Your task to perform on an android device: View the shopping cart on ebay.com. Search for usb-a on ebay.com, select the first entry, add it to the cart, then select checkout. Image 0: 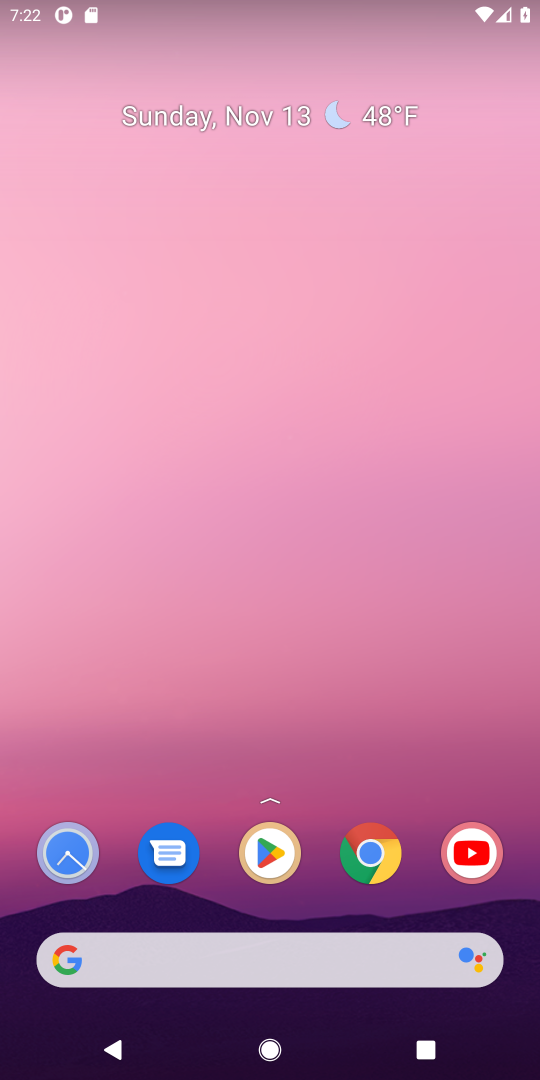
Step 0: press home button
Your task to perform on an android device: View the shopping cart on ebay.com. Search for usb-a on ebay.com, select the first entry, add it to the cart, then select checkout. Image 1: 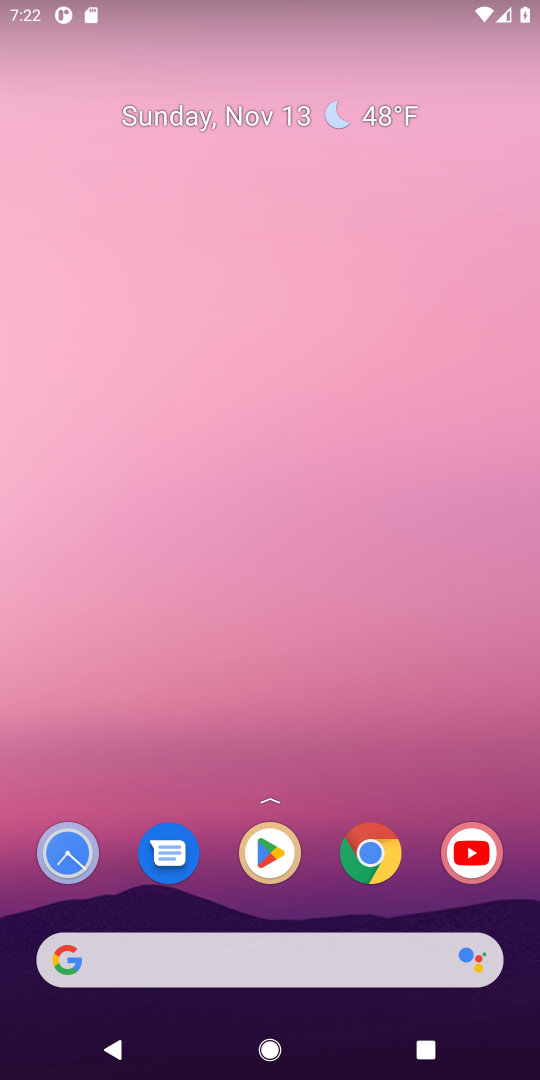
Step 1: click (109, 962)
Your task to perform on an android device: View the shopping cart on ebay.com. Search for usb-a on ebay.com, select the first entry, add it to the cart, then select checkout. Image 2: 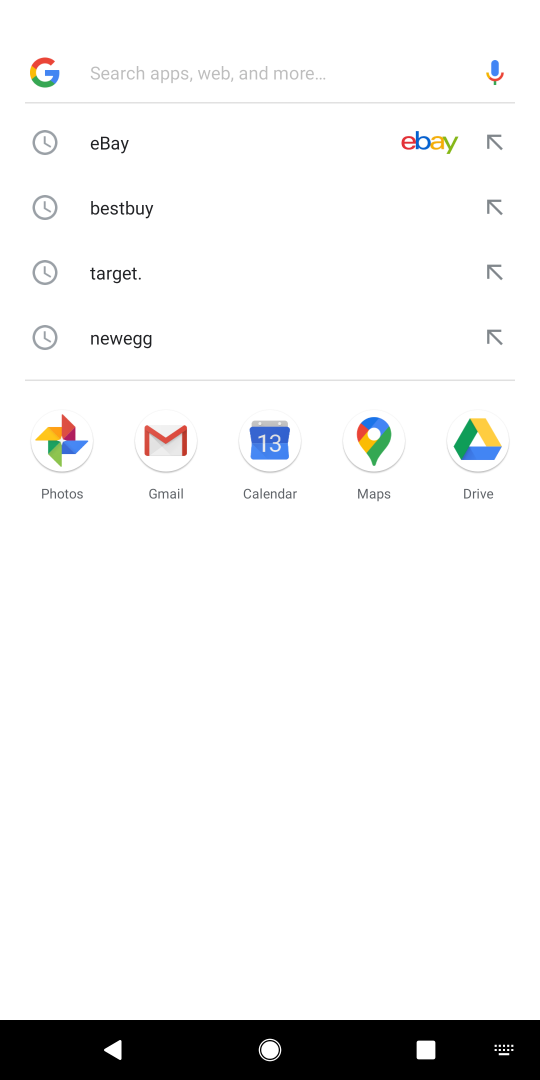
Step 2: click (130, 139)
Your task to perform on an android device: View the shopping cart on ebay.com. Search for usb-a on ebay.com, select the first entry, add it to the cart, then select checkout. Image 3: 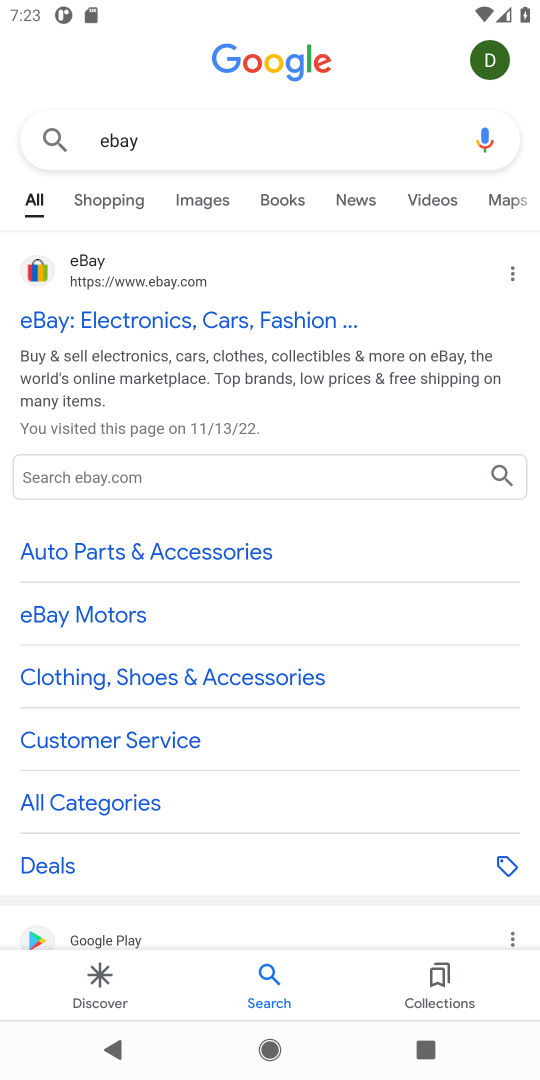
Step 3: click (111, 313)
Your task to perform on an android device: View the shopping cart on ebay.com. Search for usb-a on ebay.com, select the first entry, add it to the cart, then select checkout. Image 4: 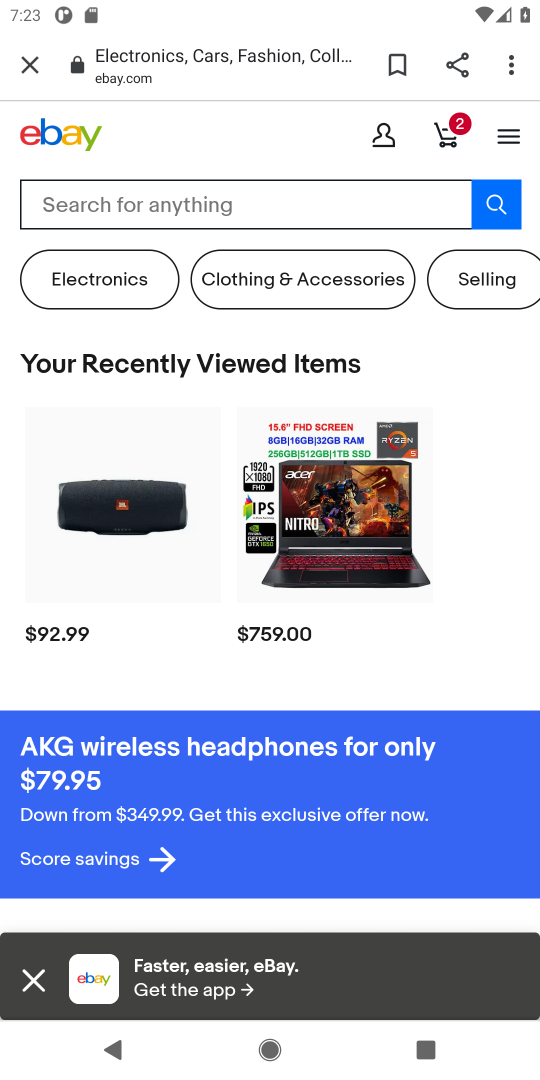
Step 4: click (447, 138)
Your task to perform on an android device: View the shopping cart on ebay.com. Search for usb-a on ebay.com, select the first entry, add it to the cart, then select checkout. Image 5: 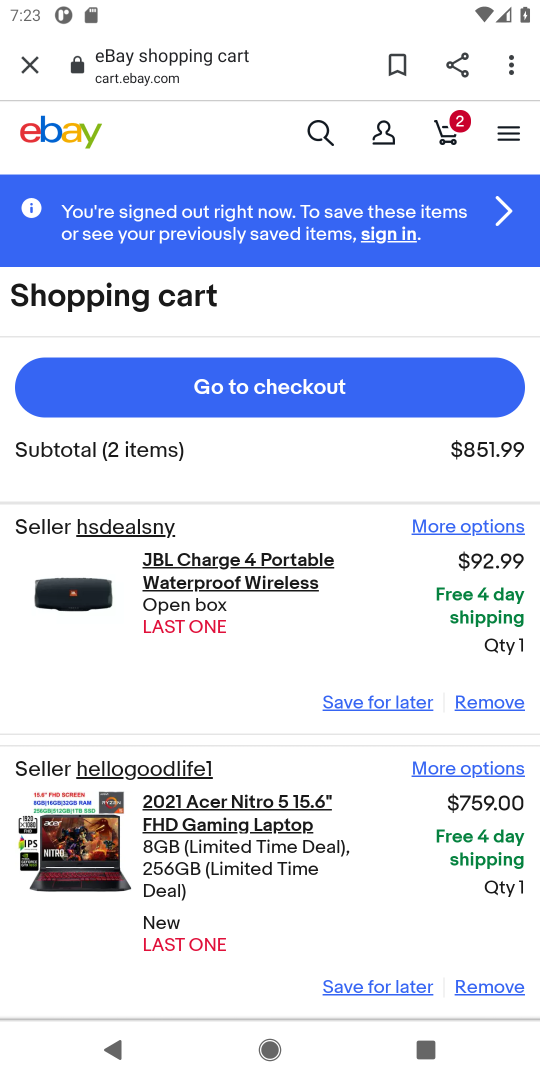
Step 5: click (315, 129)
Your task to perform on an android device: View the shopping cart on ebay.com. Search for usb-a on ebay.com, select the first entry, add it to the cart, then select checkout. Image 6: 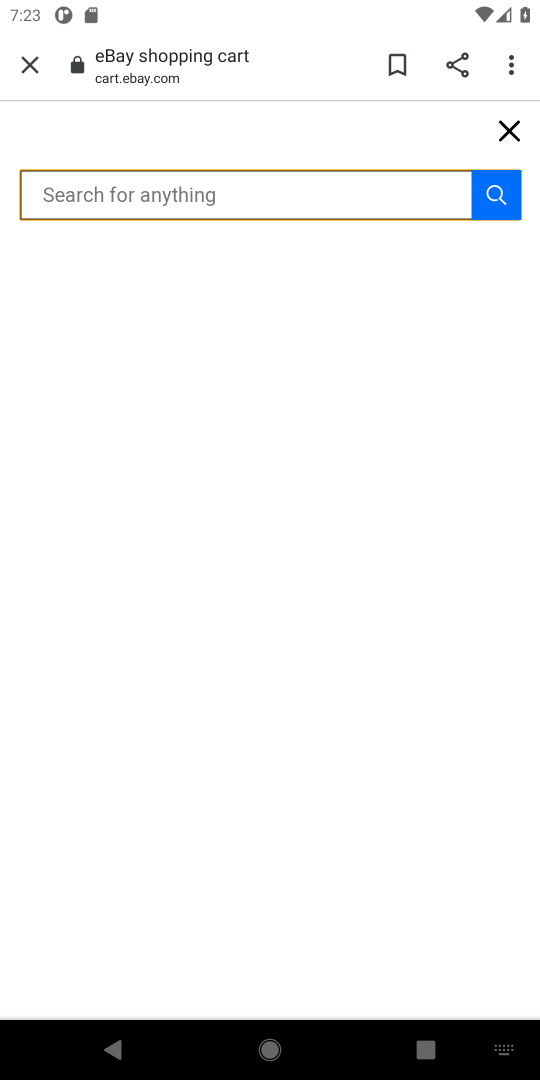
Step 6: type "usb-a"
Your task to perform on an android device: View the shopping cart on ebay.com. Search for usb-a on ebay.com, select the first entry, add it to the cart, then select checkout. Image 7: 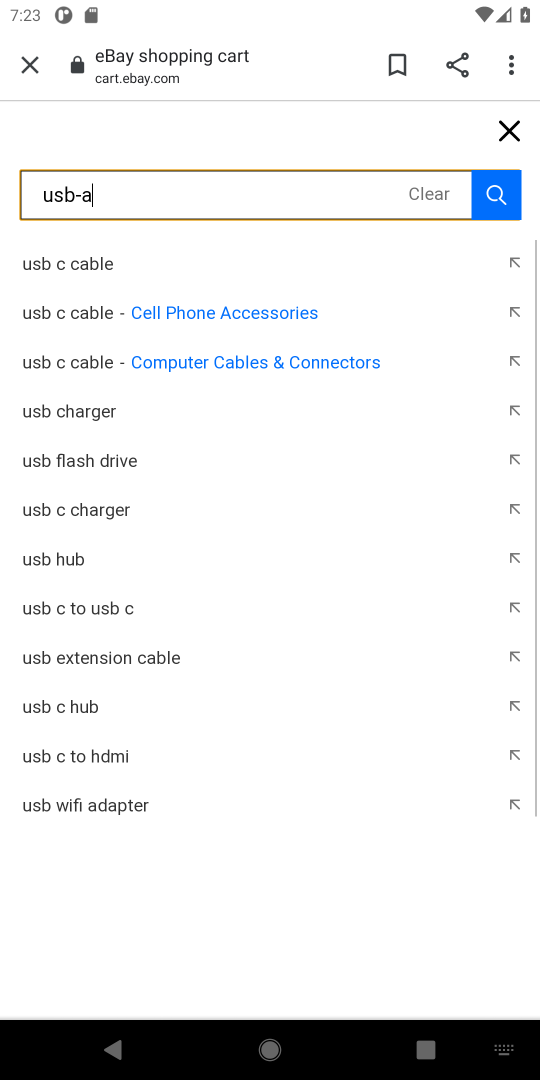
Step 7: press enter
Your task to perform on an android device: View the shopping cart on ebay.com. Search for usb-a on ebay.com, select the first entry, add it to the cart, then select checkout. Image 8: 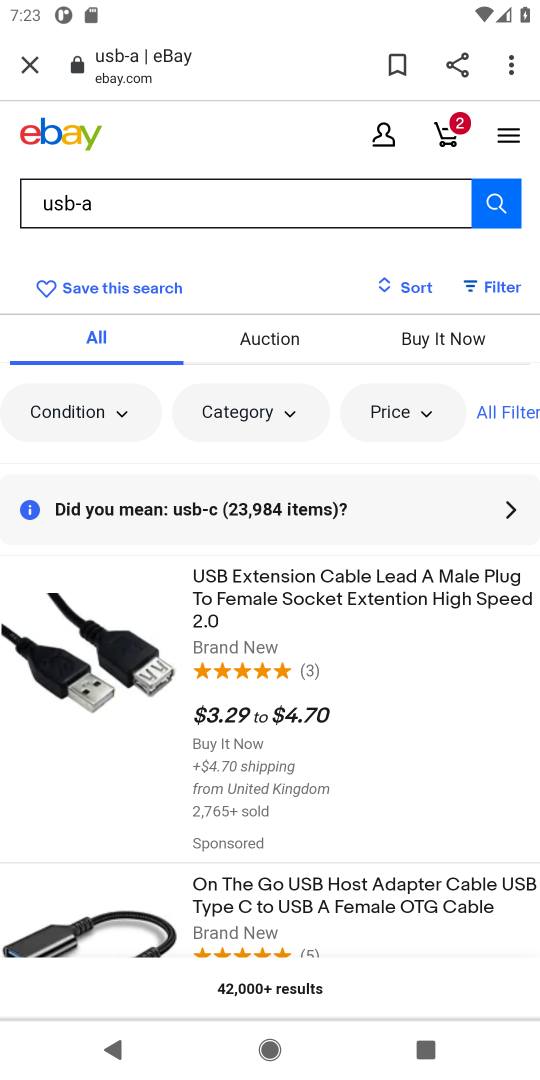
Step 8: click (286, 593)
Your task to perform on an android device: View the shopping cart on ebay.com. Search for usb-a on ebay.com, select the first entry, add it to the cart, then select checkout. Image 9: 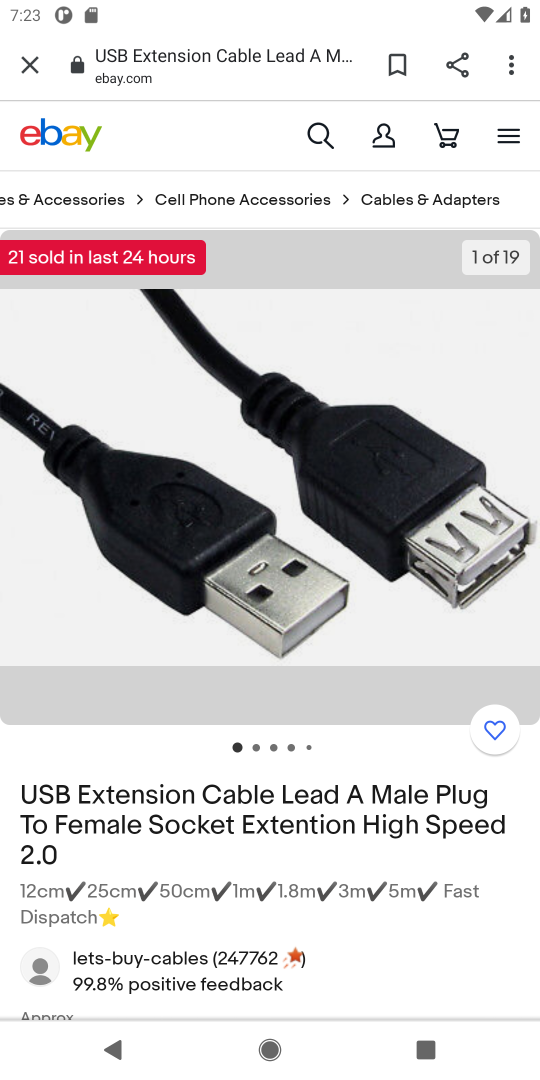
Step 9: drag from (306, 889) to (300, 400)
Your task to perform on an android device: View the shopping cart on ebay.com. Search for usb-a on ebay.com, select the first entry, add it to the cart, then select checkout. Image 10: 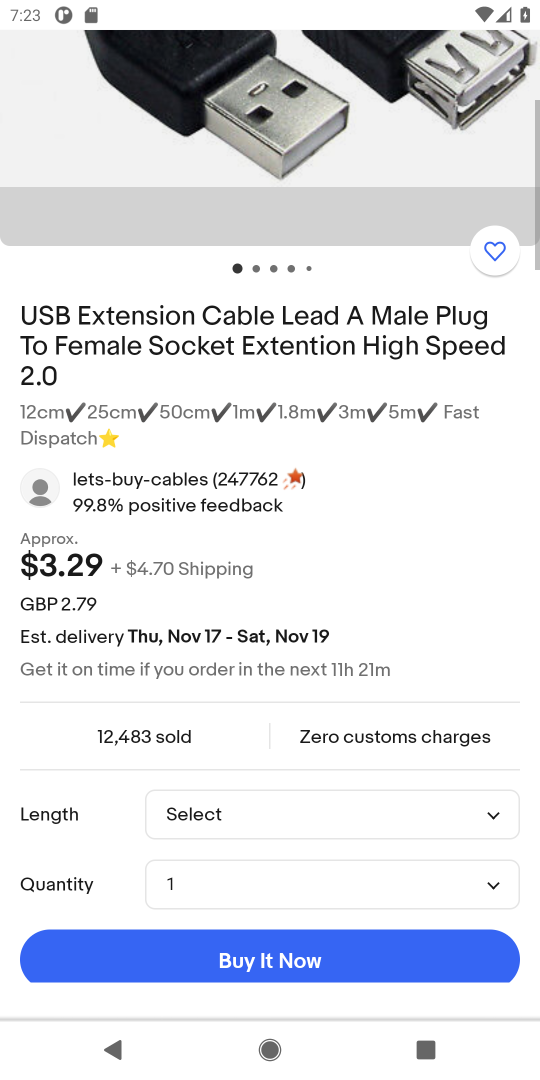
Step 10: drag from (252, 838) to (268, 299)
Your task to perform on an android device: View the shopping cart on ebay.com. Search for usb-a on ebay.com, select the first entry, add it to the cart, then select checkout. Image 11: 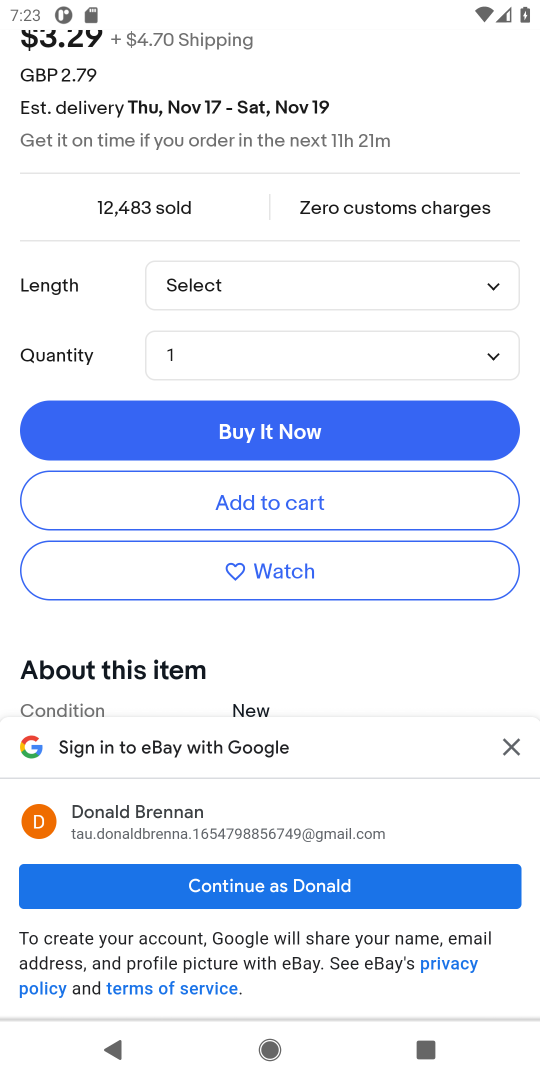
Step 11: click (505, 740)
Your task to perform on an android device: View the shopping cart on ebay.com. Search for usb-a on ebay.com, select the first entry, add it to the cart, then select checkout. Image 12: 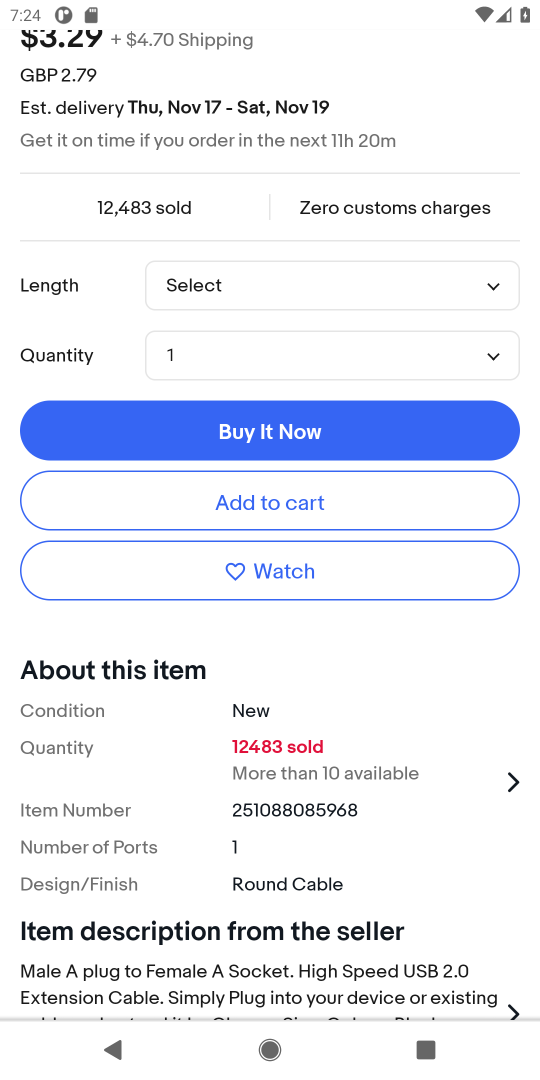
Step 12: click (287, 498)
Your task to perform on an android device: View the shopping cart on ebay.com. Search for usb-a on ebay.com, select the first entry, add it to the cart, then select checkout. Image 13: 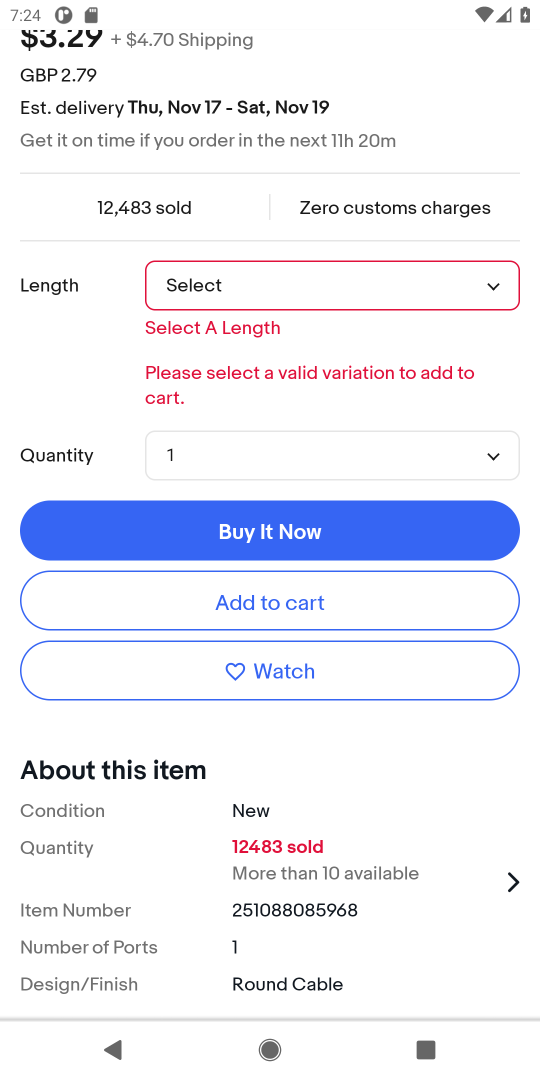
Step 13: click (490, 285)
Your task to perform on an android device: View the shopping cart on ebay.com. Search for usb-a on ebay.com, select the first entry, add it to the cart, then select checkout. Image 14: 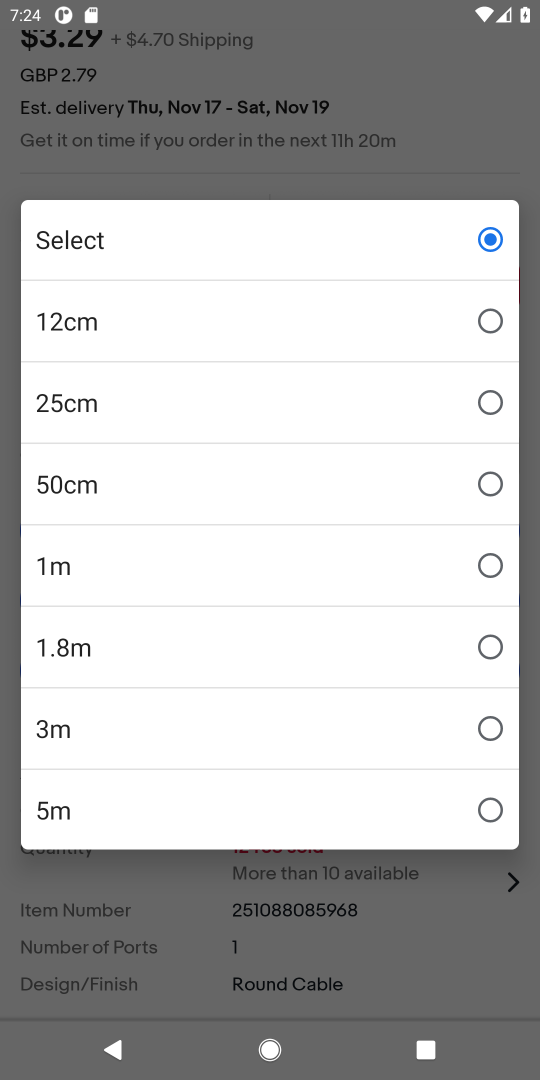
Step 14: click (490, 327)
Your task to perform on an android device: View the shopping cart on ebay.com. Search for usb-a on ebay.com, select the first entry, add it to the cart, then select checkout. Image 15: 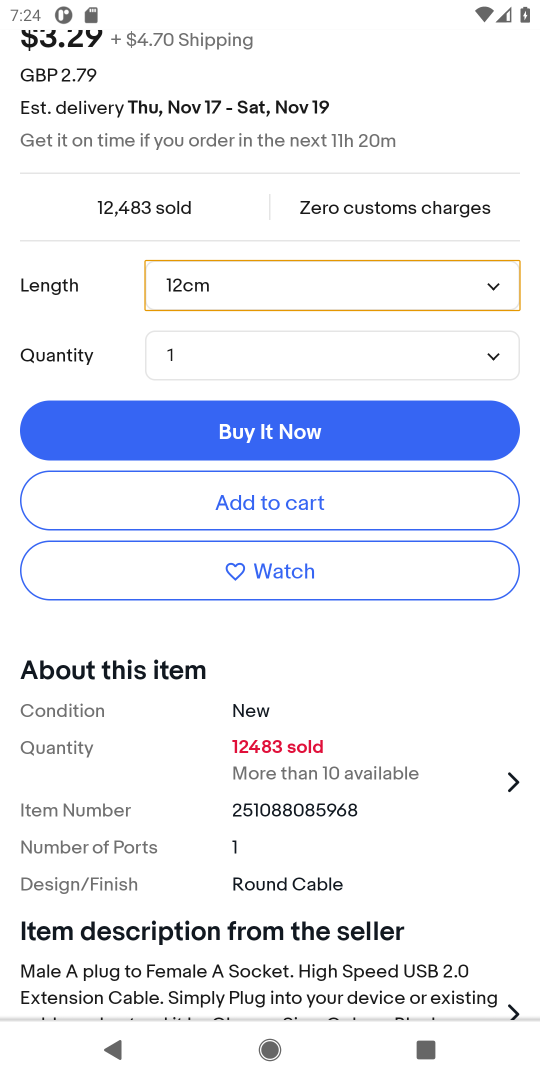
Step 15: click (271, 503)
Your task to perform on an android device: View the shopping cart on ebay.com. Search for usb-a on ebay.com, select the first entry, add it to the cart, then select checkout. Image 16: 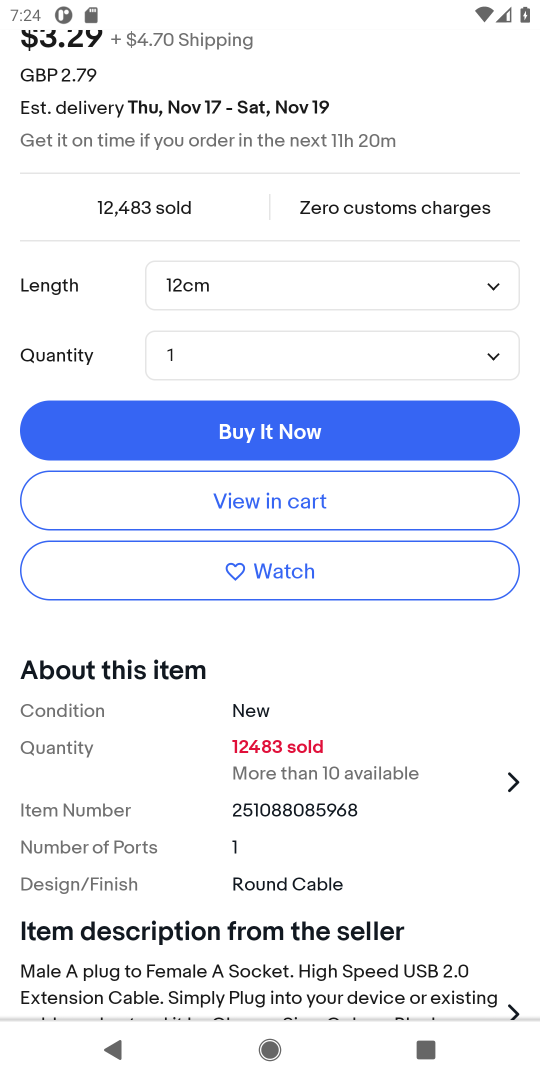
Step 16: task complete